Your task to perform on an android device: see sites visited before in the chrome app Image 0: 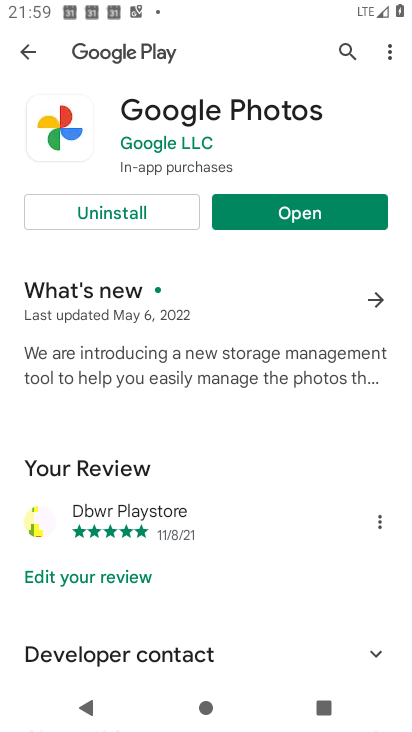
Step 0: press home button
Your task to perform on an android device: see sites visited before in the chrome app Image 1: 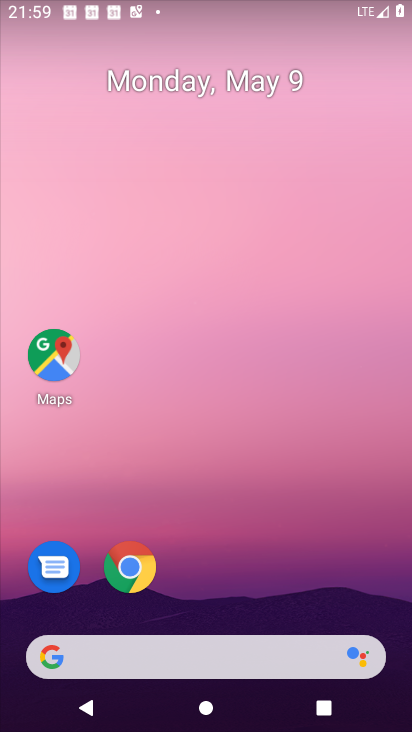
Step 1: drag from (163, 610) to (270, 149)
Your task to perform on an android device: see sites visited before in the chrome app Image 2: 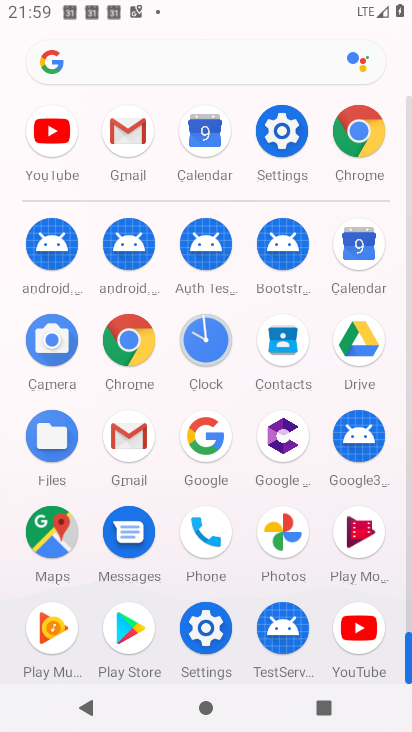
Step 2: click (130, 335)
Your task to perform on an android device: see sites visited before in the chrome app Image 3: 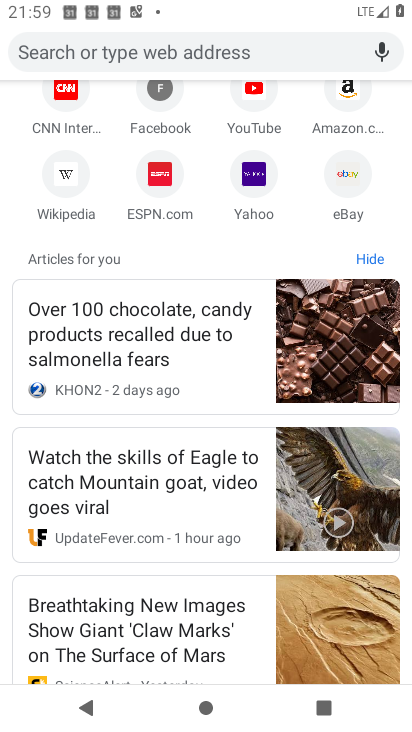
Step 3: drag from (260, 253) to (258, 726)
Your task to perform on an android device: see sites visited before in the chrome app Image 4: 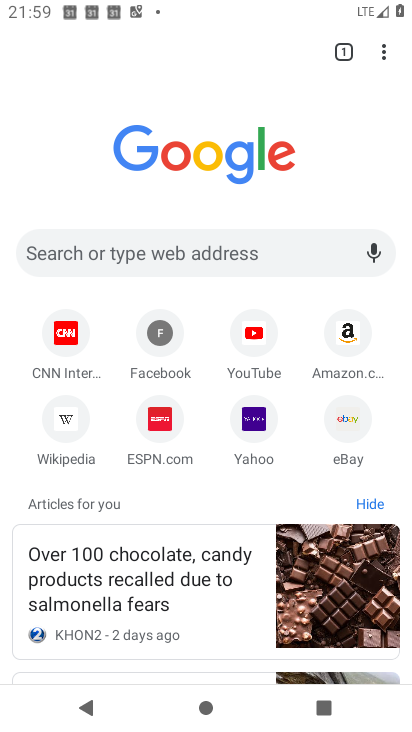
Step 4: click (392, 57)
Your task to perform on an android device: see sites visited before in the chrome app Image 5: 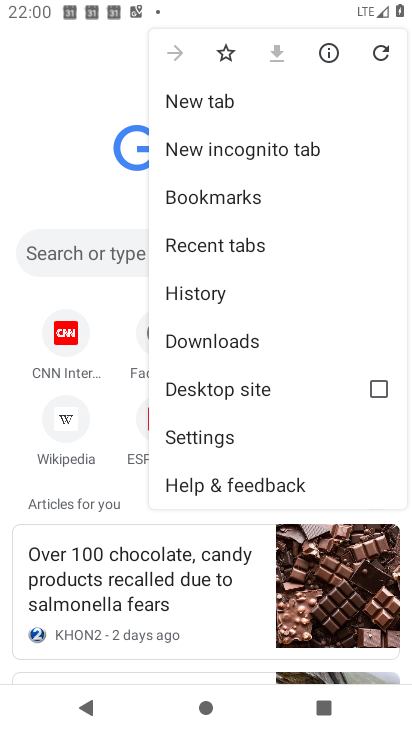
Step 5: click (231, 289)
Your task to perform on an android device: see sites visited before in the chrome app Image 6: 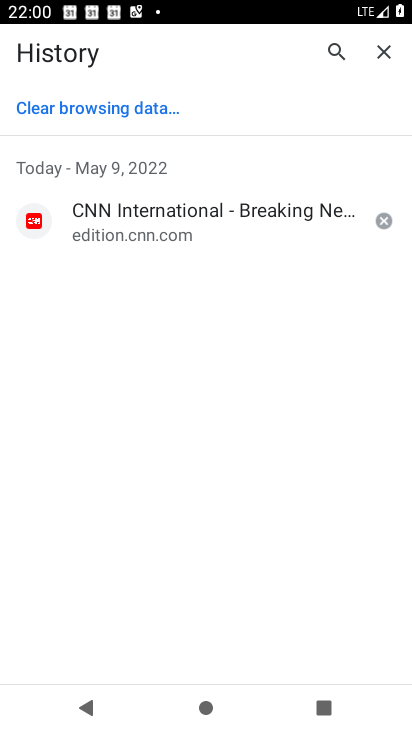
Step 6: task complete